Your task to perform on an android device: empty trash in google photos Image 0: 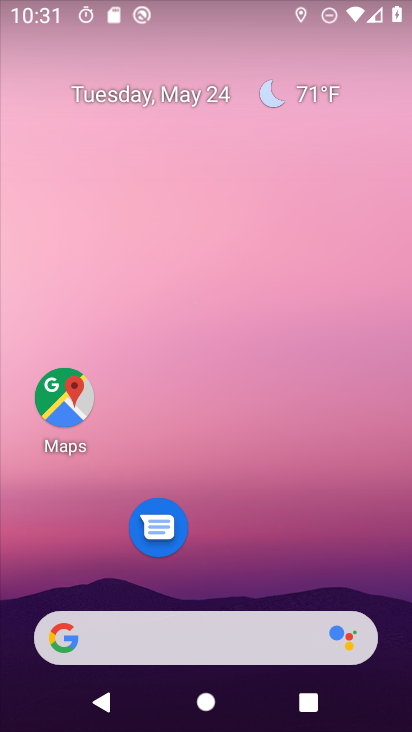
Step 0: drag from (265, 542) to (320, 58)
Your task to perform on an android device: empty trash in google photos Image 1: 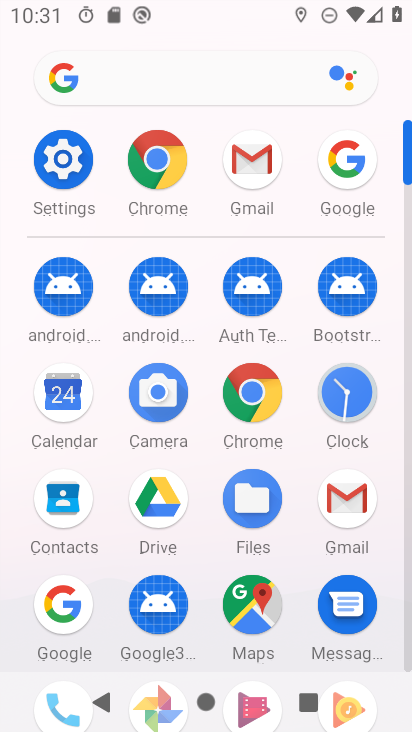
Step 1: drag from (205, 555) to (249, 256)
Your task to perform on an android device: empty trash in google photos Image 2: 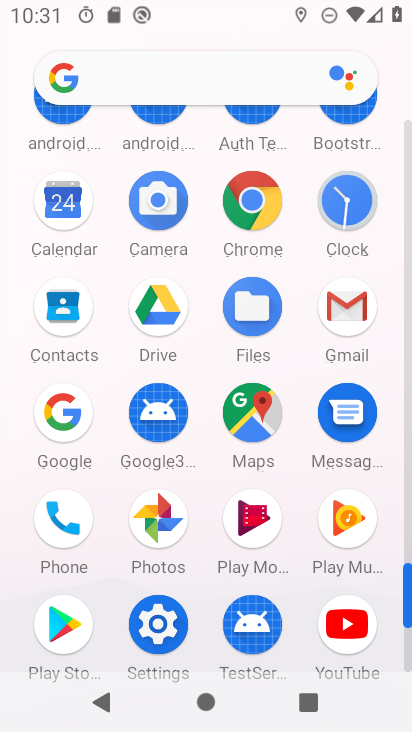
Step 2: click (157, 520)
Your task to perform on an android device: empty trash in google photos Image 3: 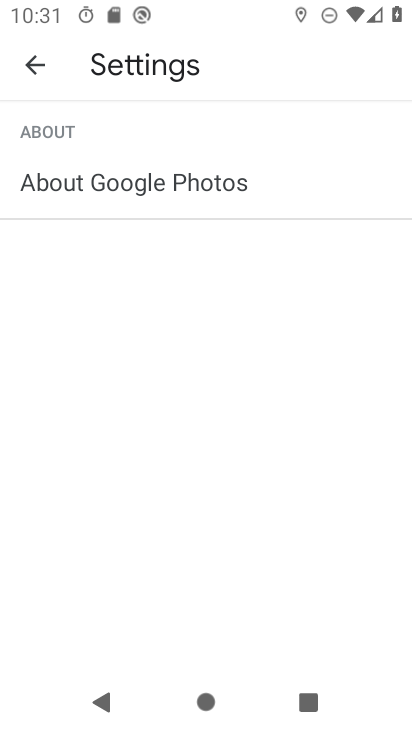
Step 3: press back button
Your task to perform on an android device: empty trash in google photos Image 4: 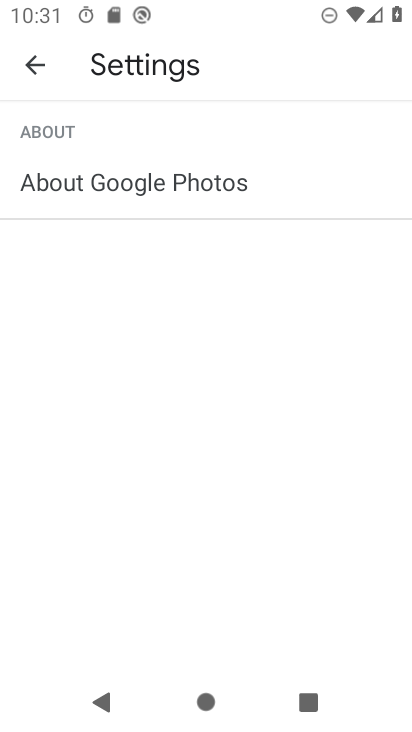
Step 4: press back button
Your task to perform on an android device: empty trash in google photos Image 5: 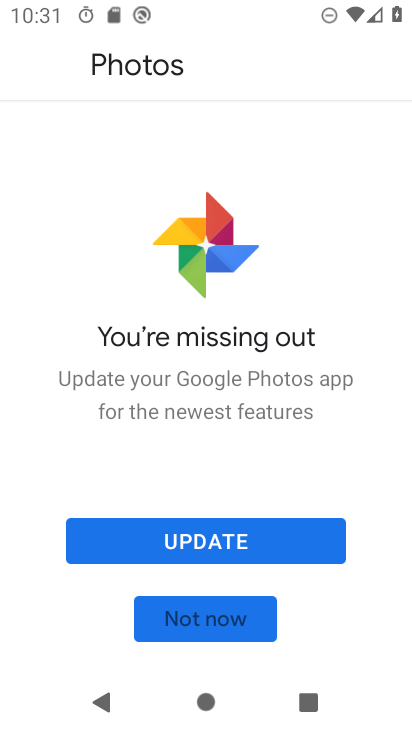
Step 5: click (213, 525)
Your task to perform on an android device: empty trash in google photos Image 6: 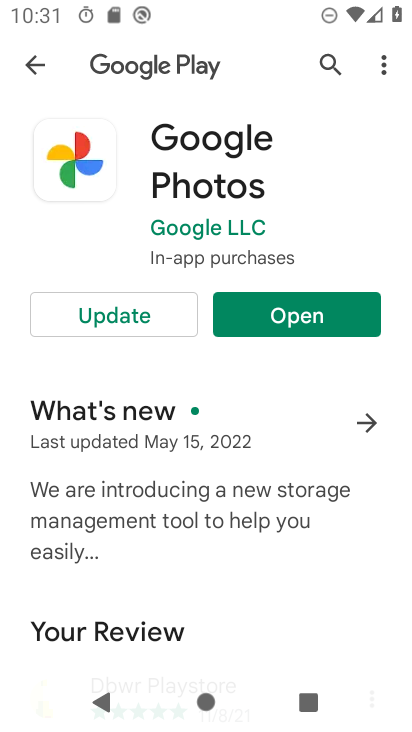
Step 6: click (129, 322)
Your task to perform on an android device: empty trash in google photos Image 7: 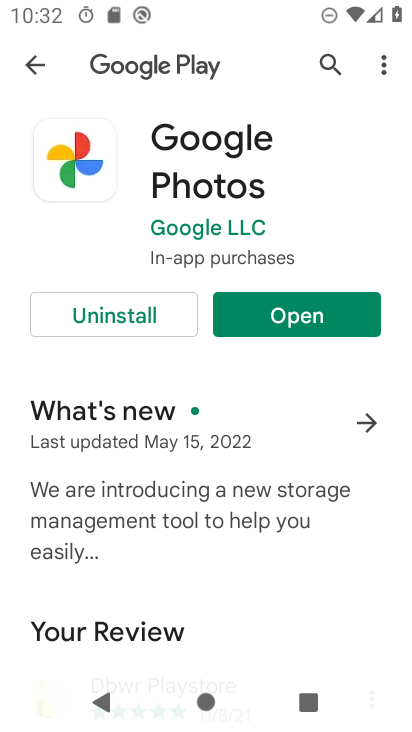
Step 7: press home button
Your task to perform on an android device: empty trash in google photos Image 8: 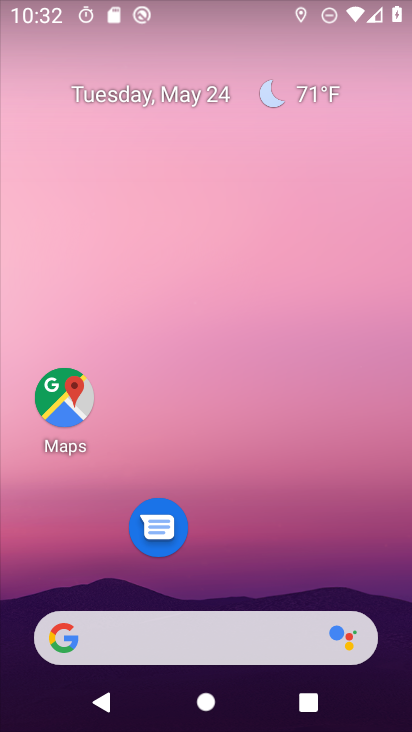
Step 8: drag from (227, 492) to (244, 78)
Your task to perform on an android device: empty trash in google photos Image 9: 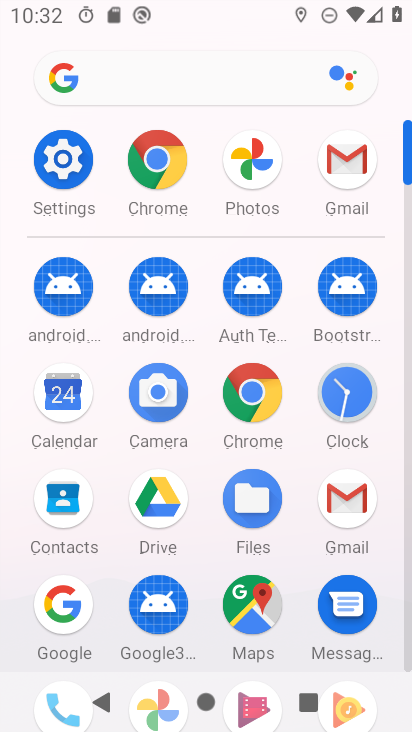
Step 9: drag from (113, 595) to (112, 263)
Your task to perform on an android device: empty trash in google photos Image 10: 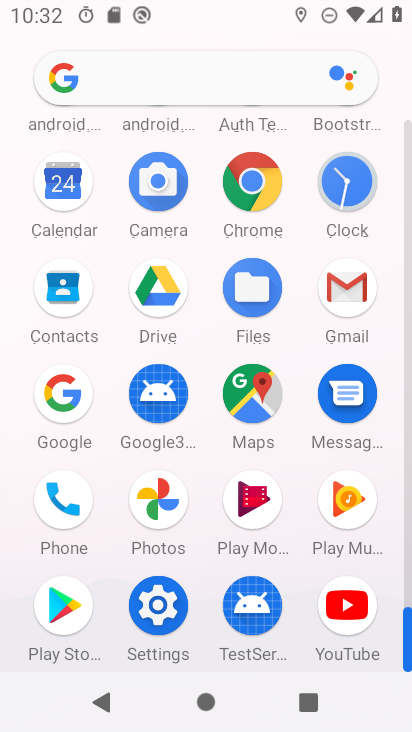
Step 10: click (160, 505)
Your task to perform on an android device: empty trash in google photos Image 11: 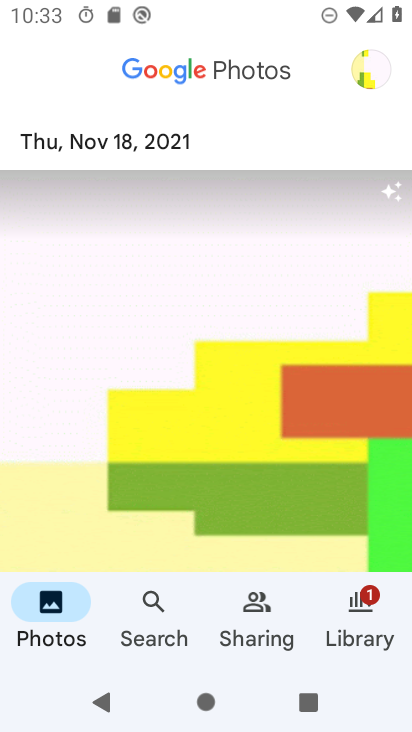
Step 11: task complete